Your task to perform on an android device: Empty the shopping cart on bestbuy. Image 0: 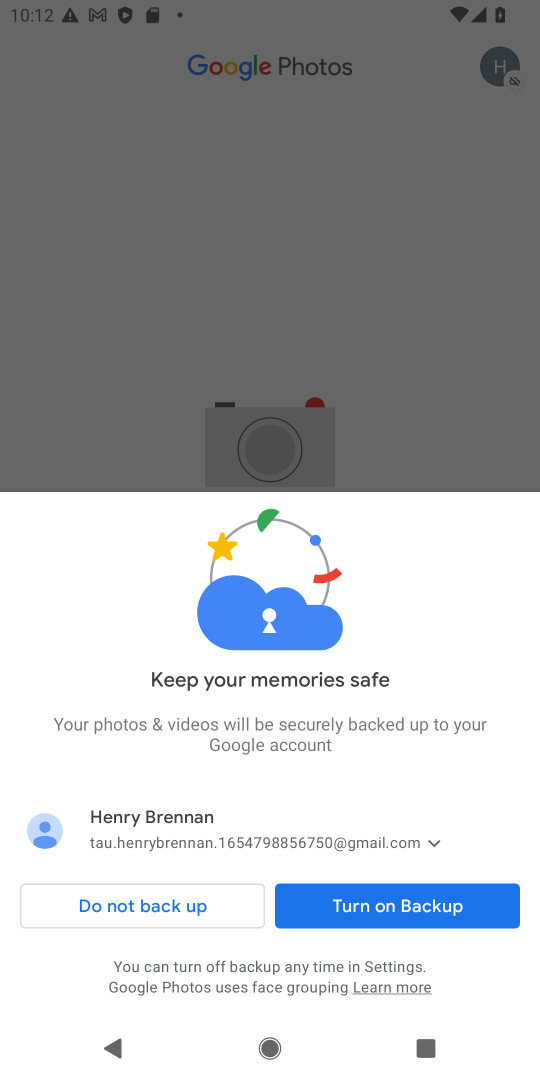
Step 0: press home button
Your task to perform on an android device: Empty the shopping cart on bestbuy. Image 1: 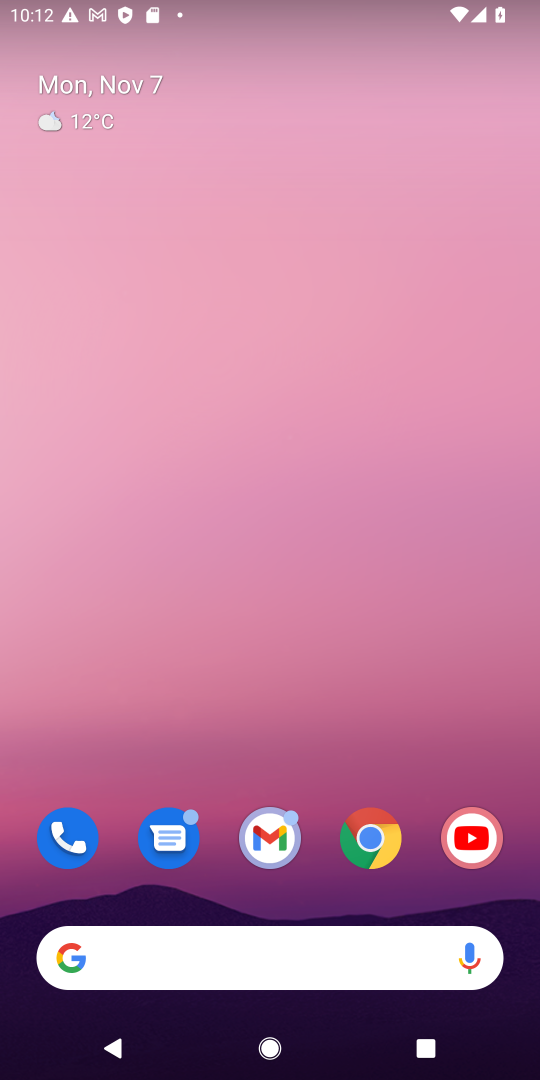
Step 1: click (356, 826)
Your task to perform on an android device: Empty the shopping cart on bestbuy. Image 2: 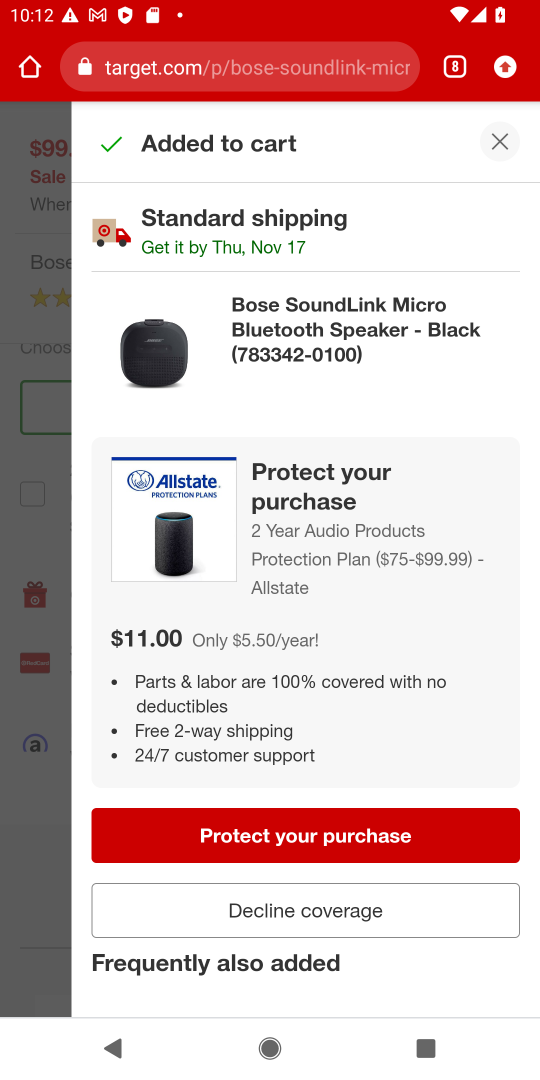
Step 2: click (462, 52)
Your task to perform on an android device: Empty the shopping cart on bestbuy. Image 3: 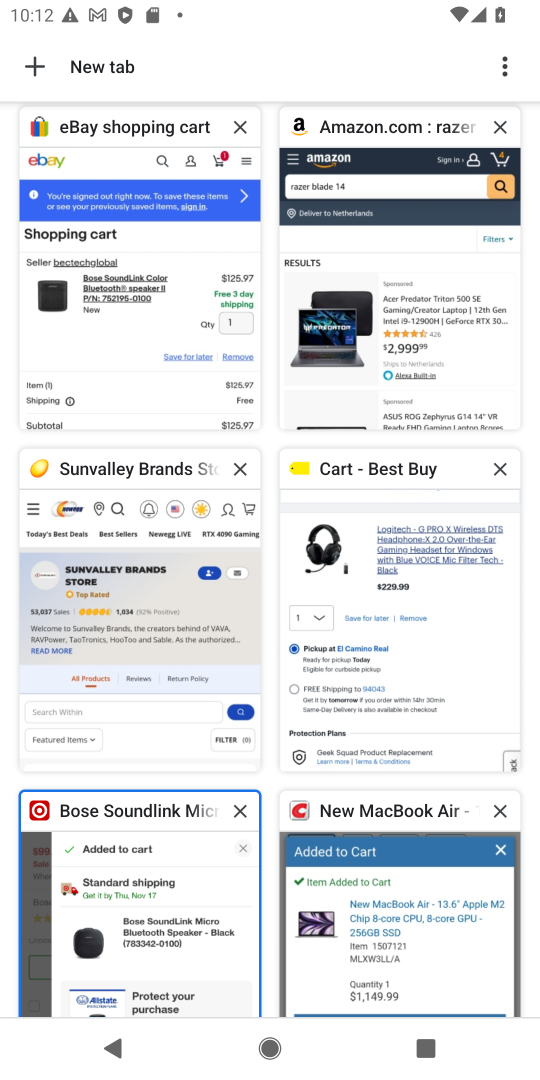
Step 3: click (357, 631)
Your task to perform on an android device: Empty the shopping cart on bestbuy. Image 4: 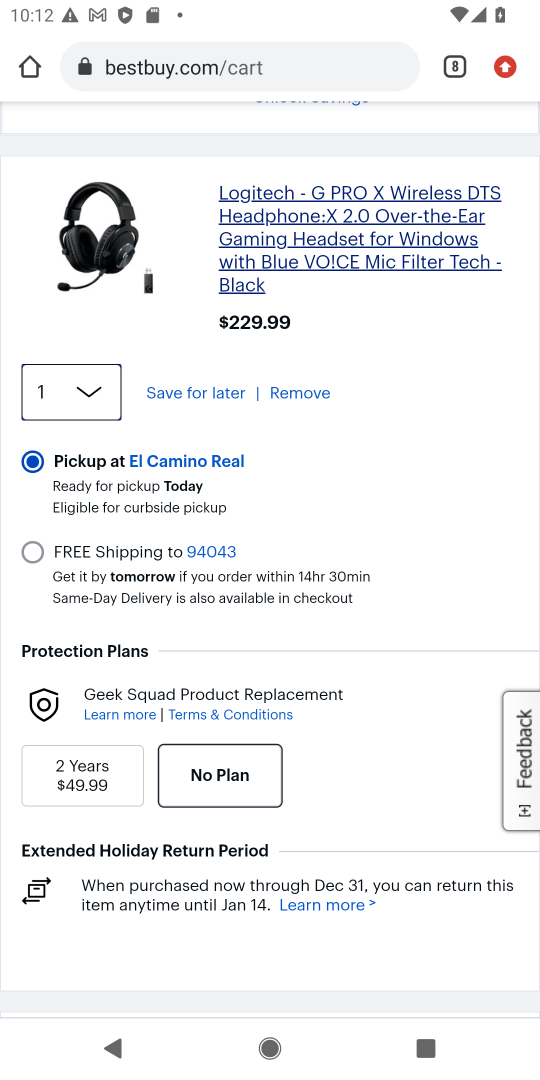
Step 4: click (289, 391)
Your task to perform on an android device: Empty the shopping cart on bestbuy. Image 5: 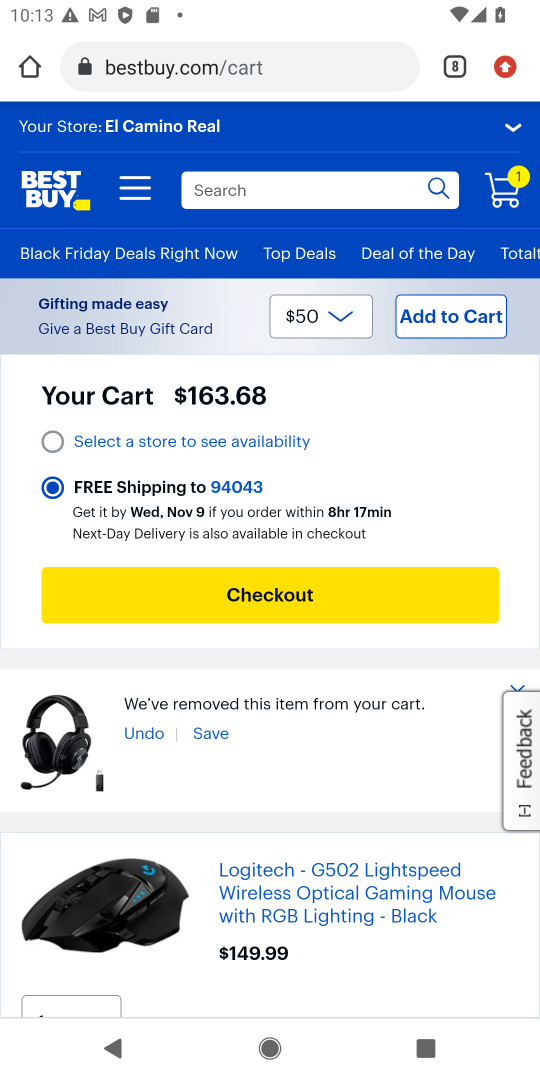
Step 5: drag from (310, 963) to (326, 483)
Your task to perform on an android device: Empty the shopping cart on bestbuy. Image 6: 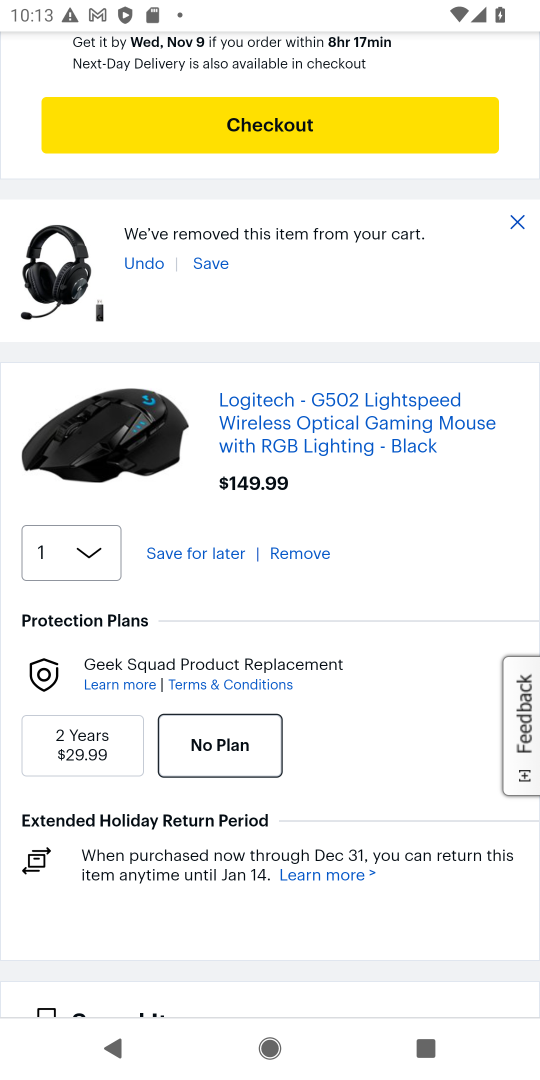
Step 6: click (288, 554)
Your task to perform on an android device: Empty the shopping cart on bestbuy. Image 7: 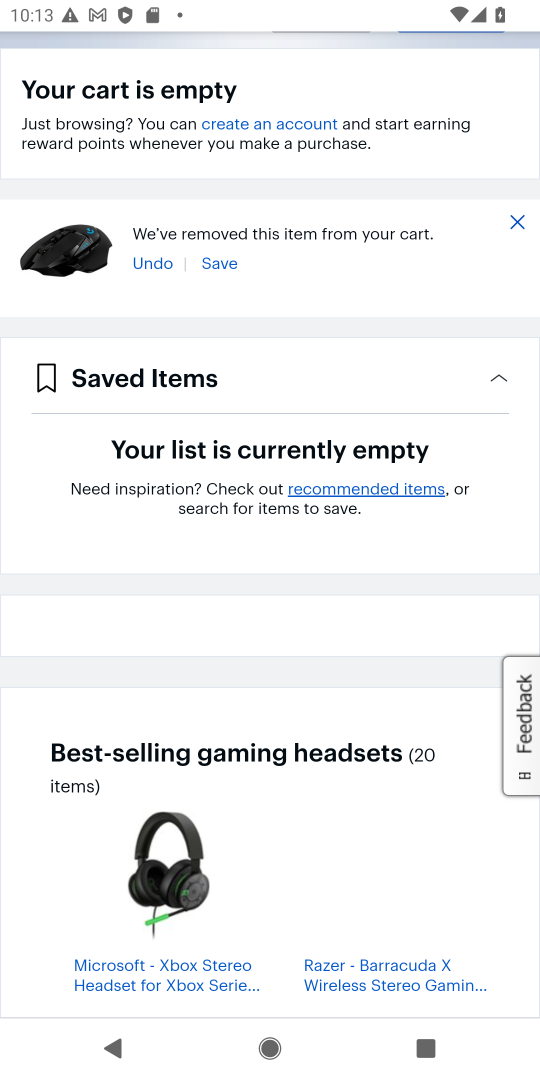
Step 7: task complete